Your task to perform on an android device: Search for seafood restaurants on Google Maps Image 0: 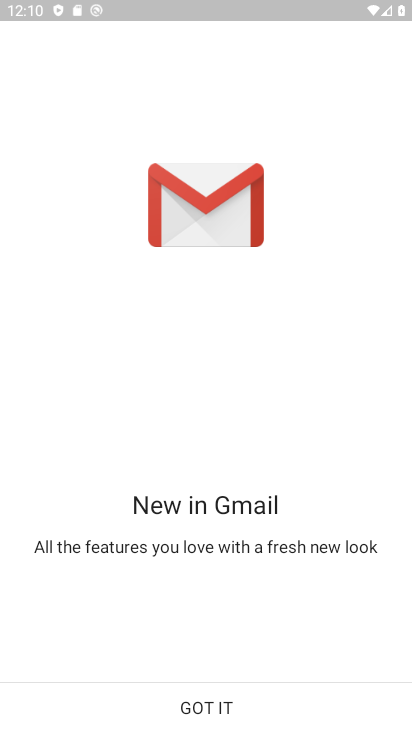
Step 0: press home button
Your task to perform on an android device: Search for seafood restaurants on Google Maps Image 1: 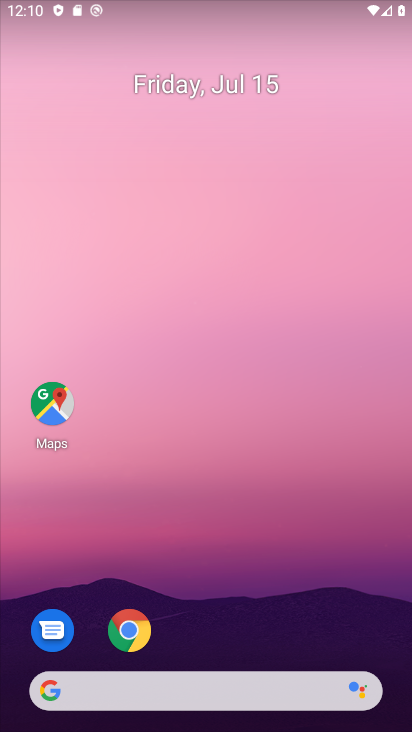
Step 1: click (45, 400)
Your task to perform on an android device: Search for seafood restaurants on Google Maps Image 2: 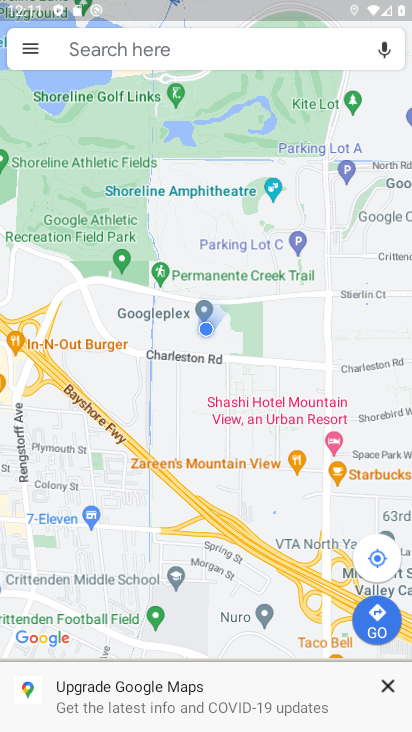
Step 2: click (94, 54)
Your task to perform on an android device: Search for seafood restaurants on Google Maps Image 3: 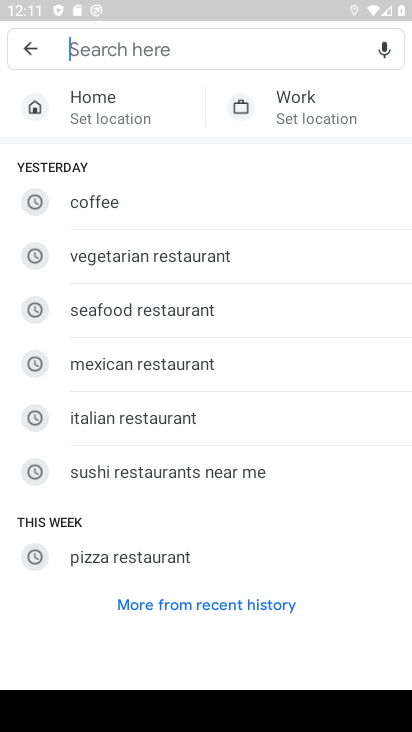
Step 3: click (146, 307)
Your task to perform on an android device: Search for seafood restaurants on Google Maps Image 4: 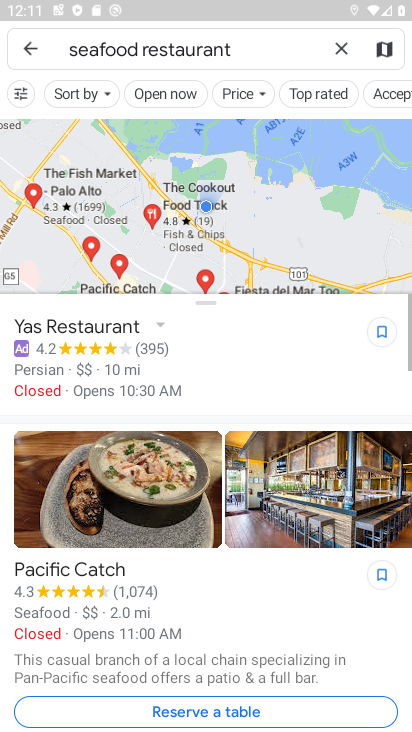
Step 4: task complete